Your task to perform on an android device: install app "Adobe Acrobat Reader: Edit PDF" Image 0: 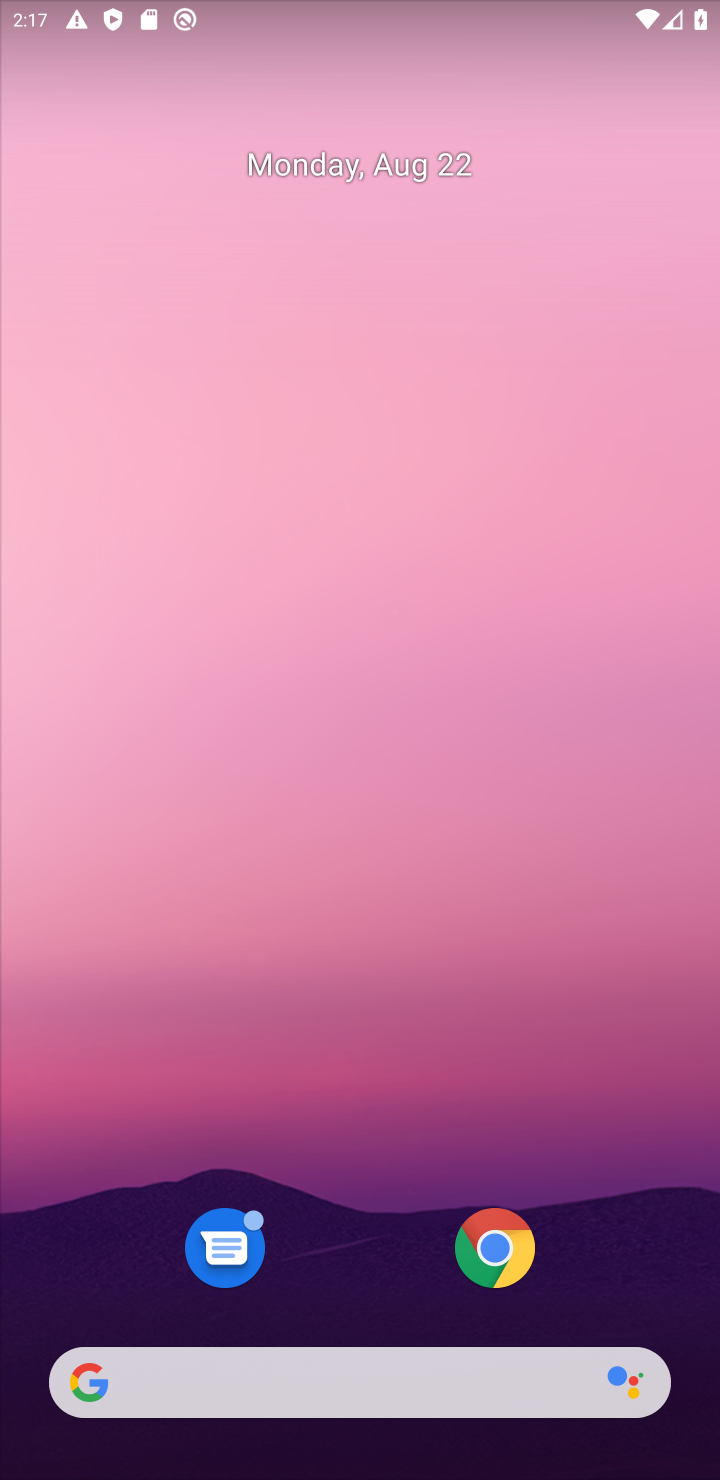
Step 0: drag from (363, 1001) to (377, 6)
Your task to perform on an android device: install app "Adobe Acrobat Reader: Edit PDF" Image 1: 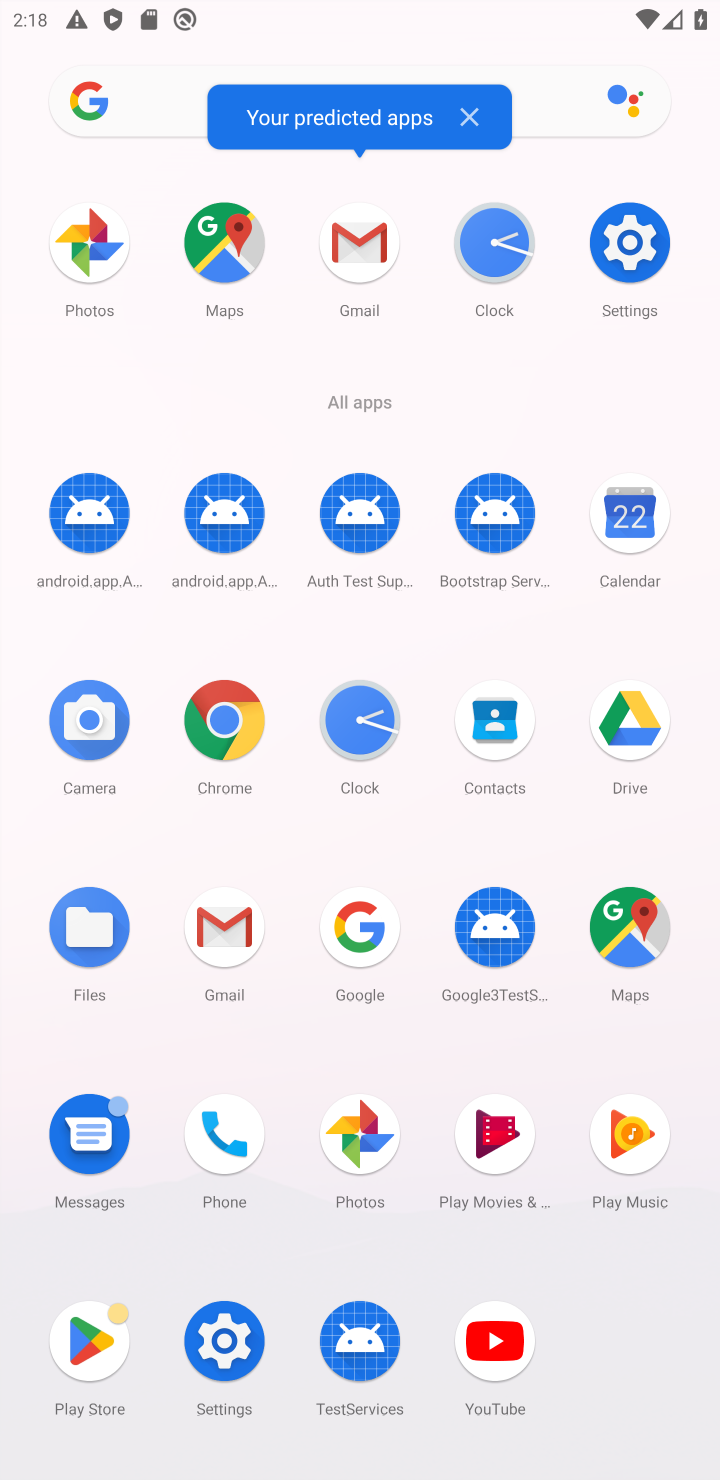
Step 1: click (85, 1332)
Your task to perform on an android device: install app "Adobe Acrobat Reader: Edit PDF" Image 2: 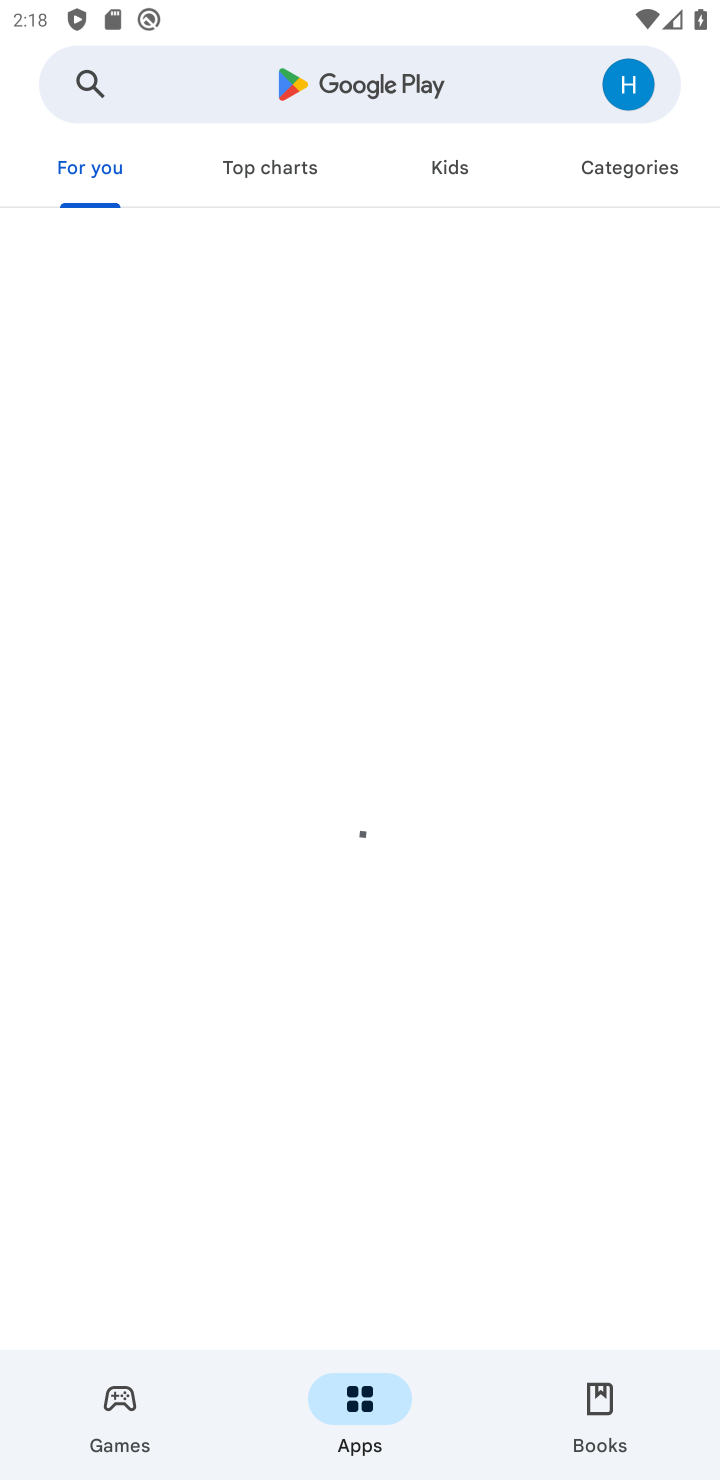
Step 2: click (375, 85)
Your task to perform on an android device: install app "Adobe Acrobat Reader: Edit PDF" Image 3: 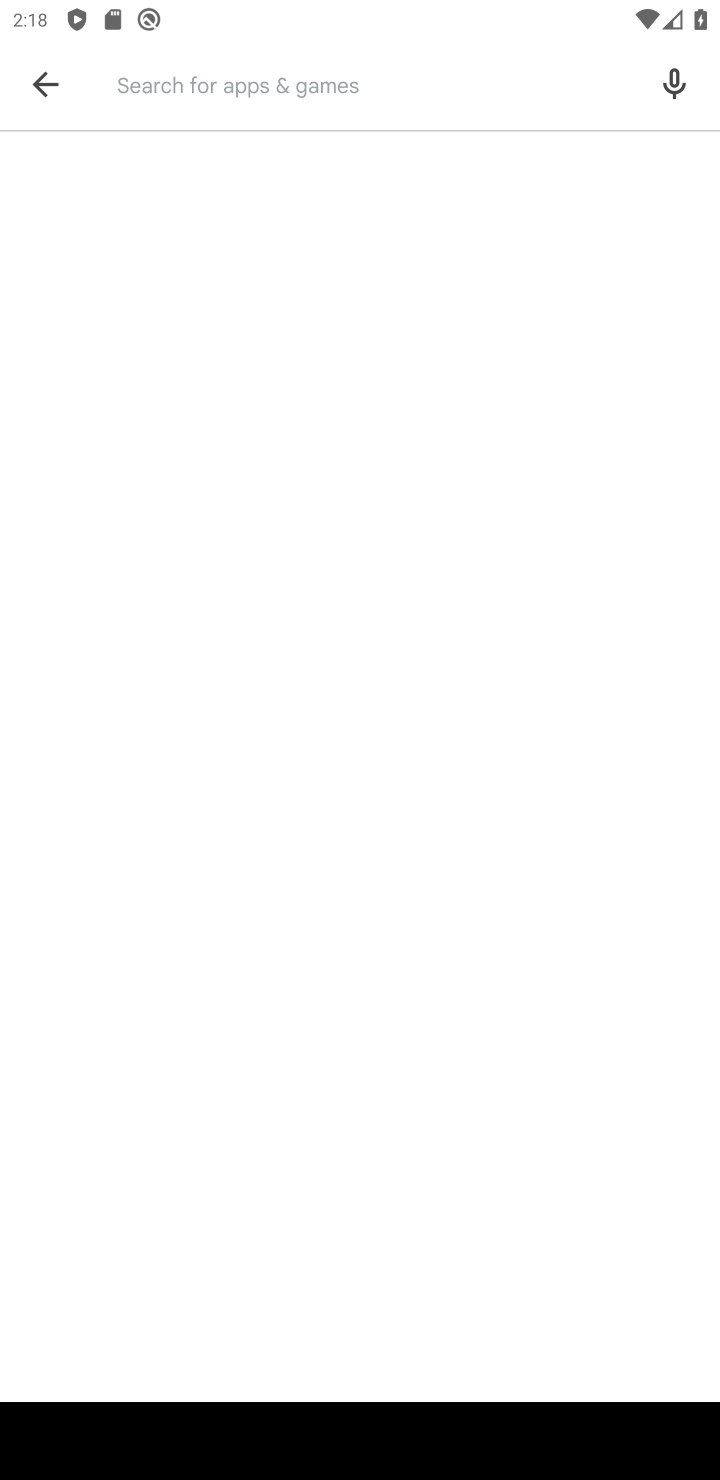
Step 3: type "Adobe Acrobat Reader"
Your task to perform on an android device: install app "Adobe Acrobat Reader: Edit PDF" Image 4: 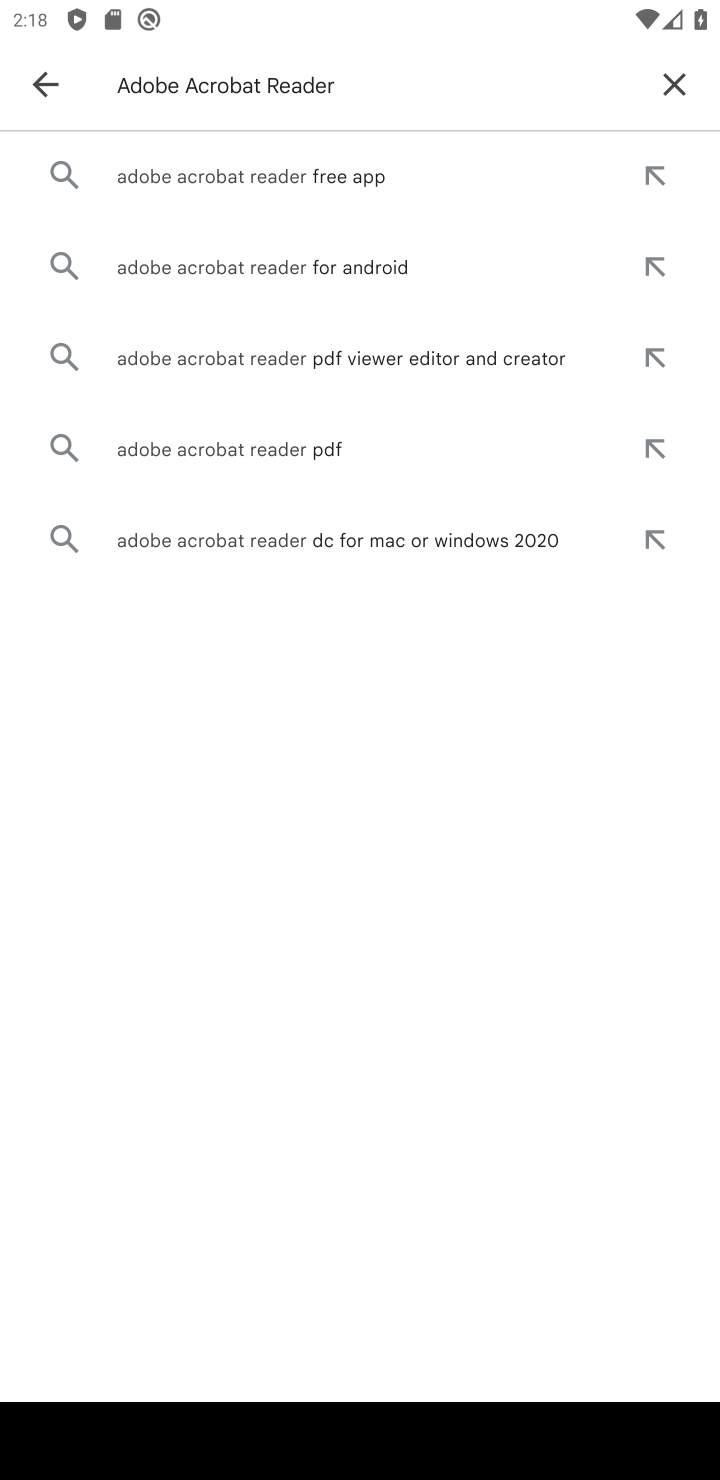
Step 4: click (368, 103)
Your task to perform on an android device: install app "Adobe Acrobat Reader: Edit PDF" Image 5: 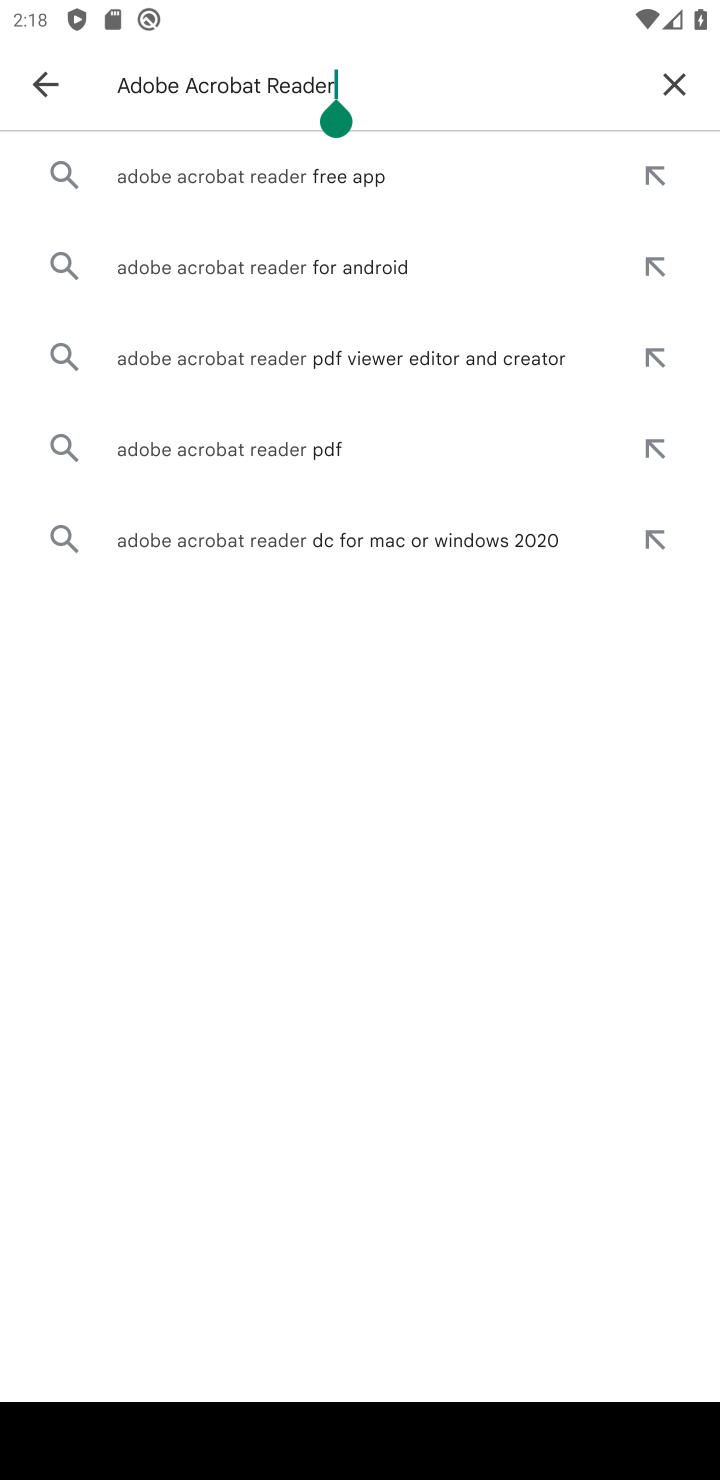
Step 5: click (337, 198)
Your task to perform on an android device: install app "Adobe Acrobat Reader: Edit PDF" Image 6: 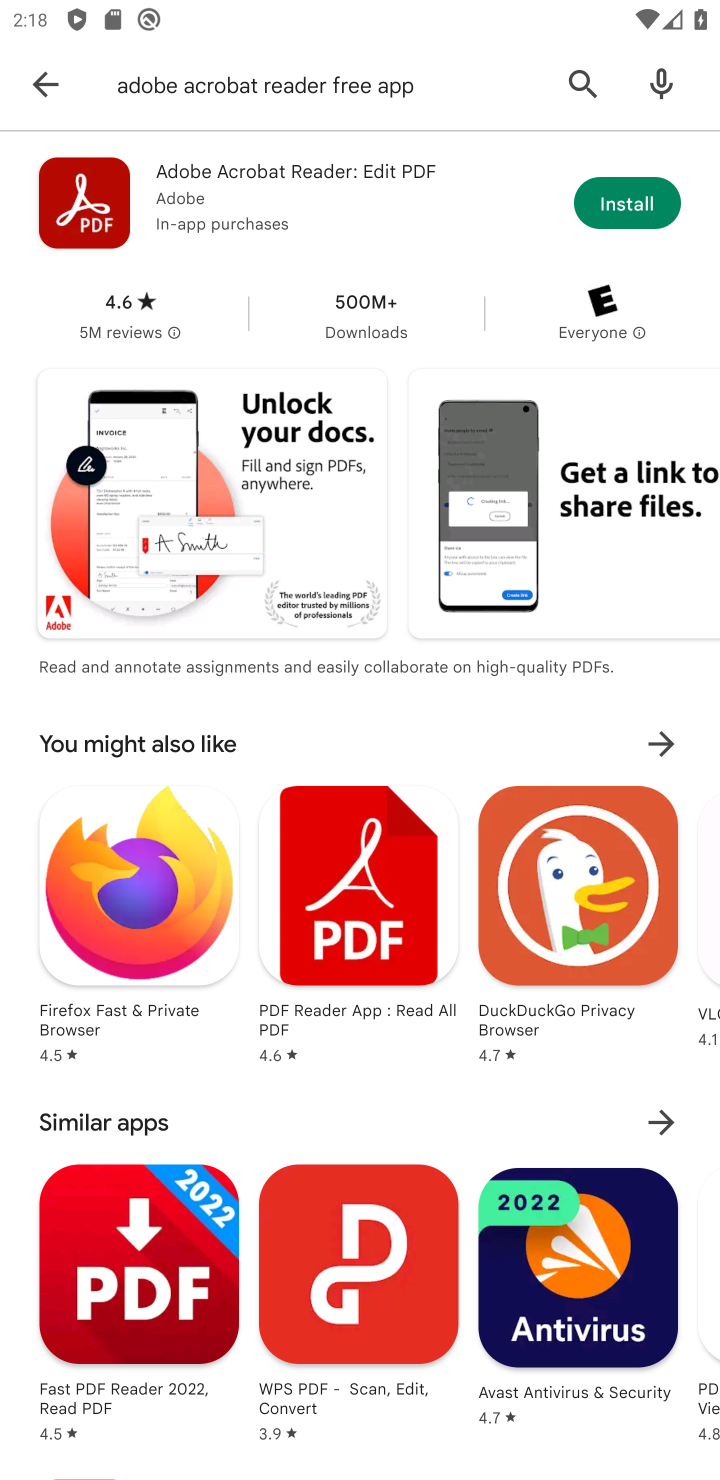
Step 6: click (649, 209)
Your task to perform on an android device: install app "Adobe Acrobat Reader: Edit PDF" Image 7: 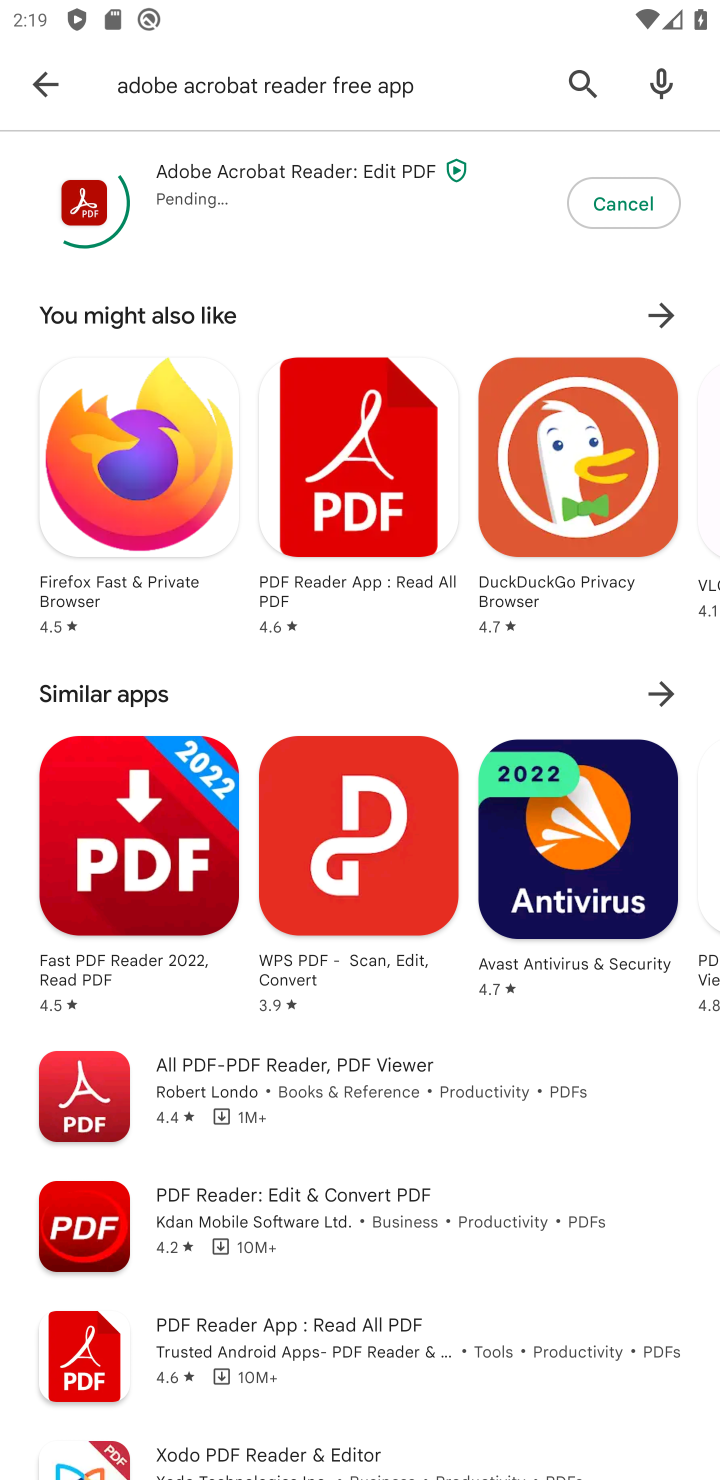
Step 7: click (40, 84)
Your task to perform on an android device: install app "Adobe Acrobat Reader: Edit PDF" Image 8: 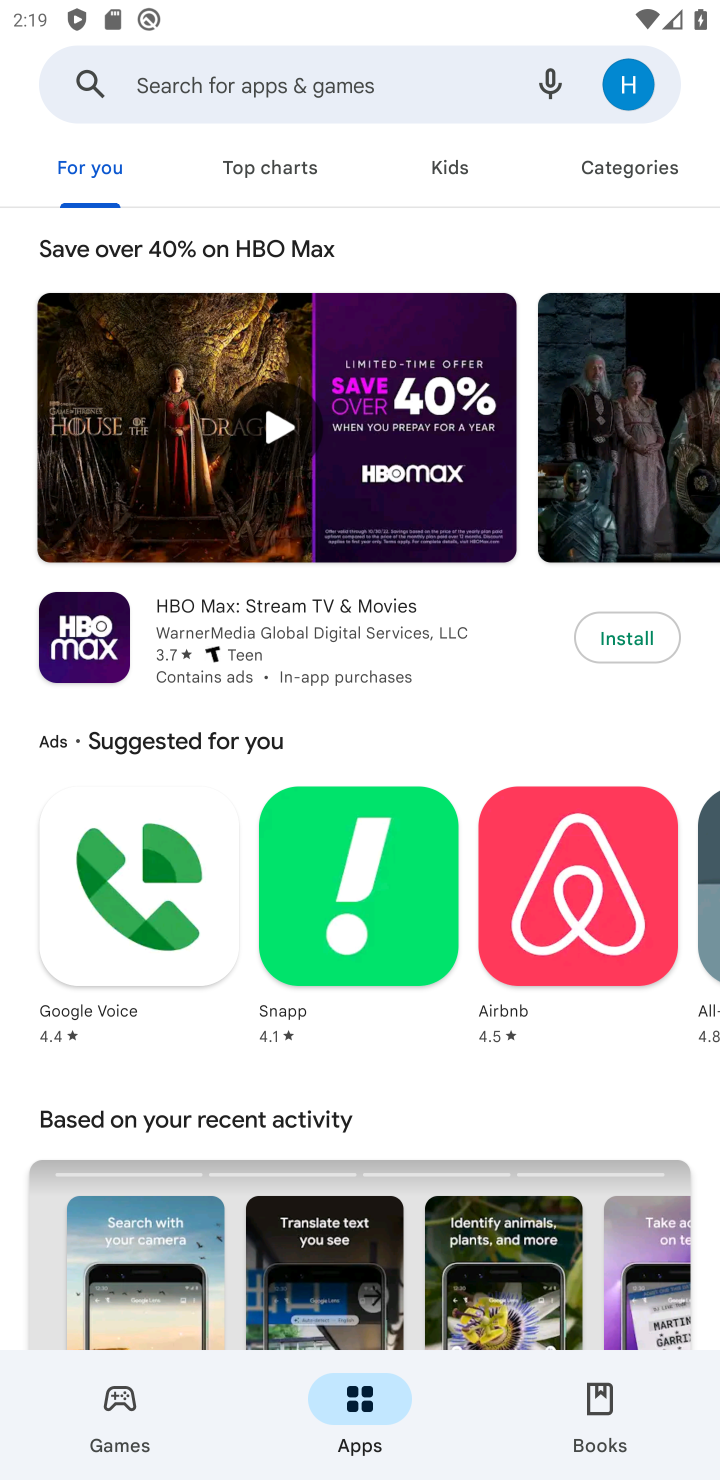
Step 8: click (632, 85)
Your task to perform on an android device: install app "Adobe Acrobat Reader: Edit PDF" Image 9: 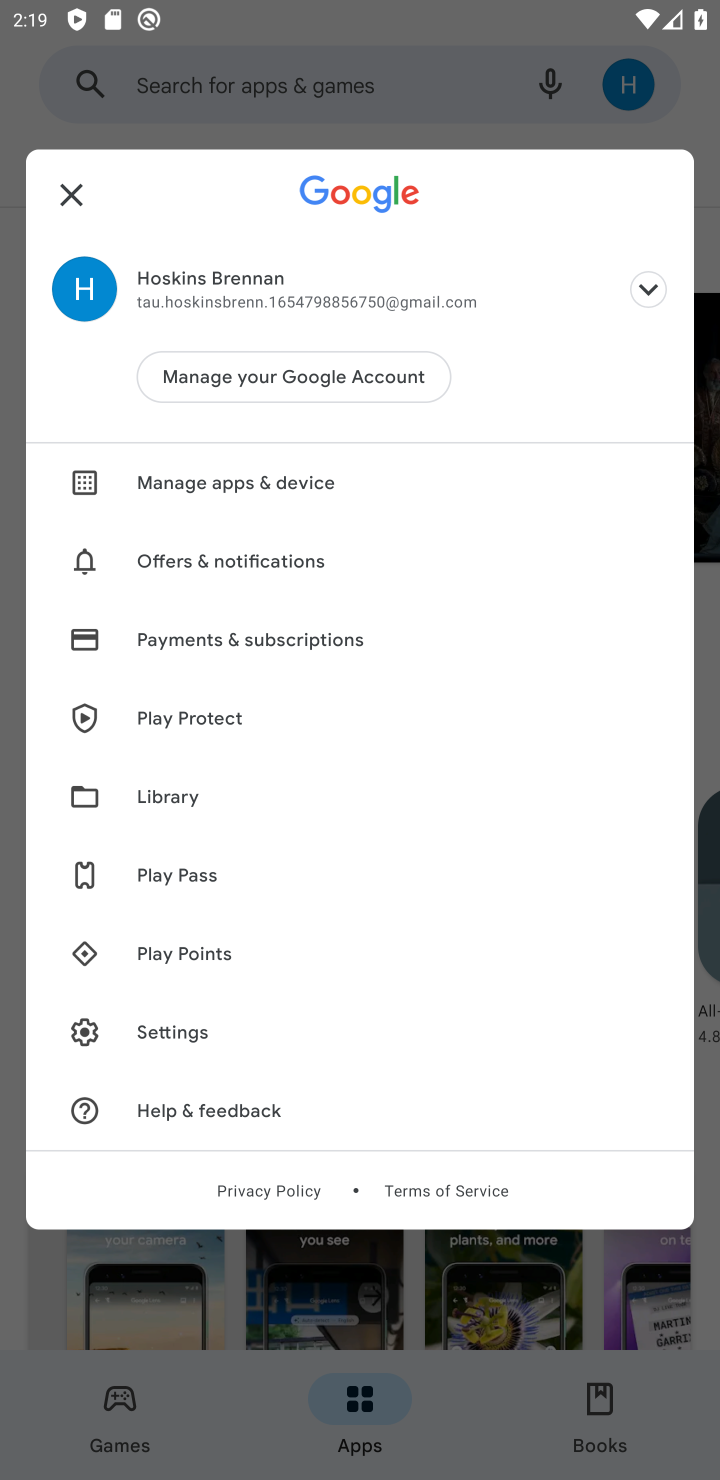
Step 9: click (272, 487)
Your task to perform on an android device: install app "Adobe Acrobat Reader: Edit PDF" Image 10: 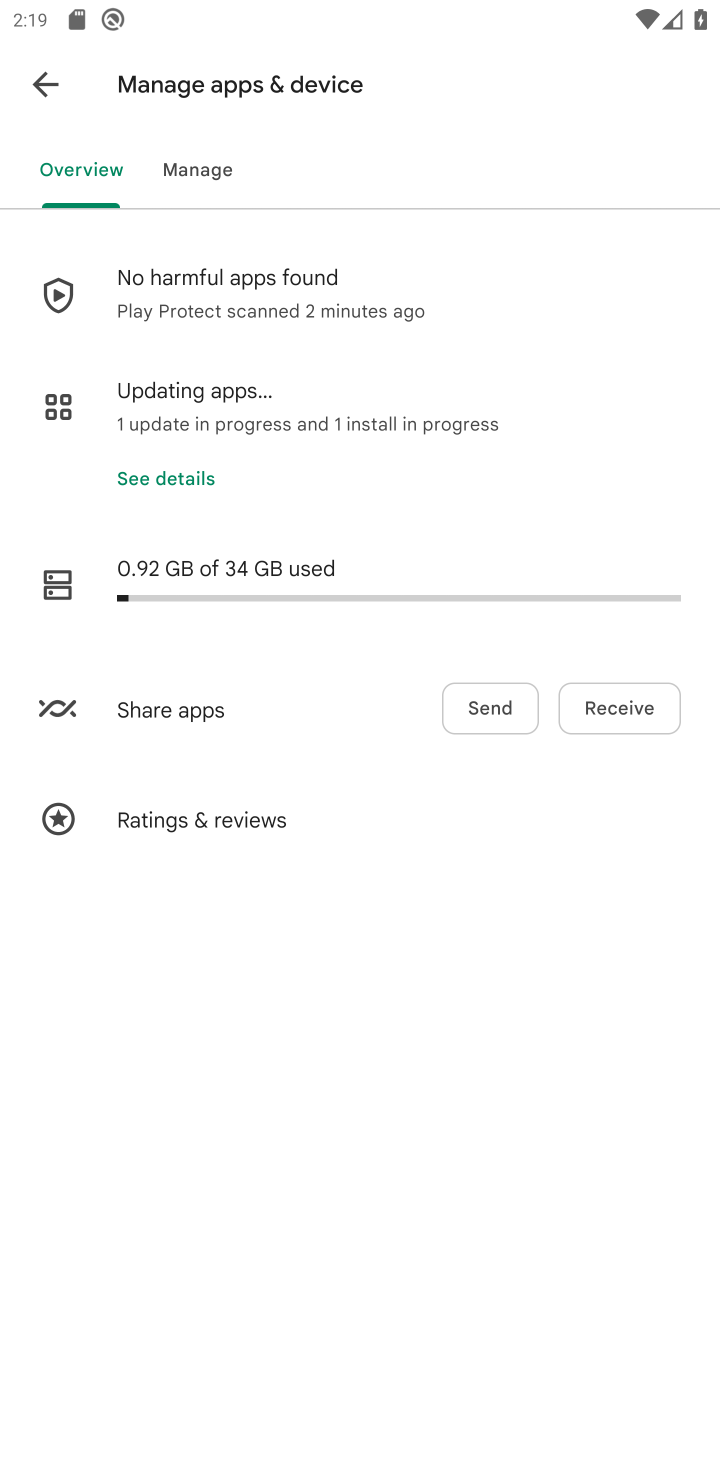
Step 10: click (237, 426)
Your task to perform on an android device: install app "Adobe Acrobat Reader: Edit PDF" Image 11: 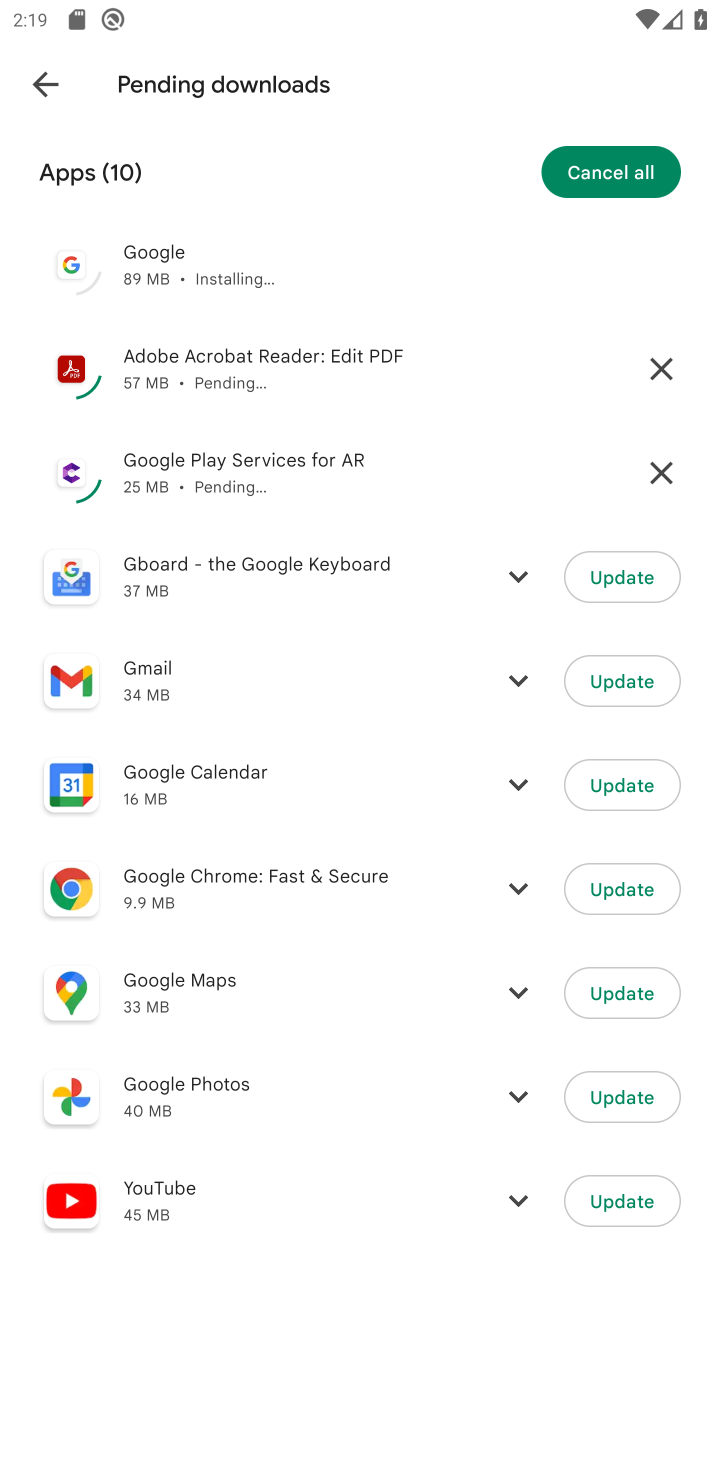
Step 11: click (659, 464)
Your task to perform on an android device: install app "Adobe Acrobat Reader: Edit PDF" Image 12: 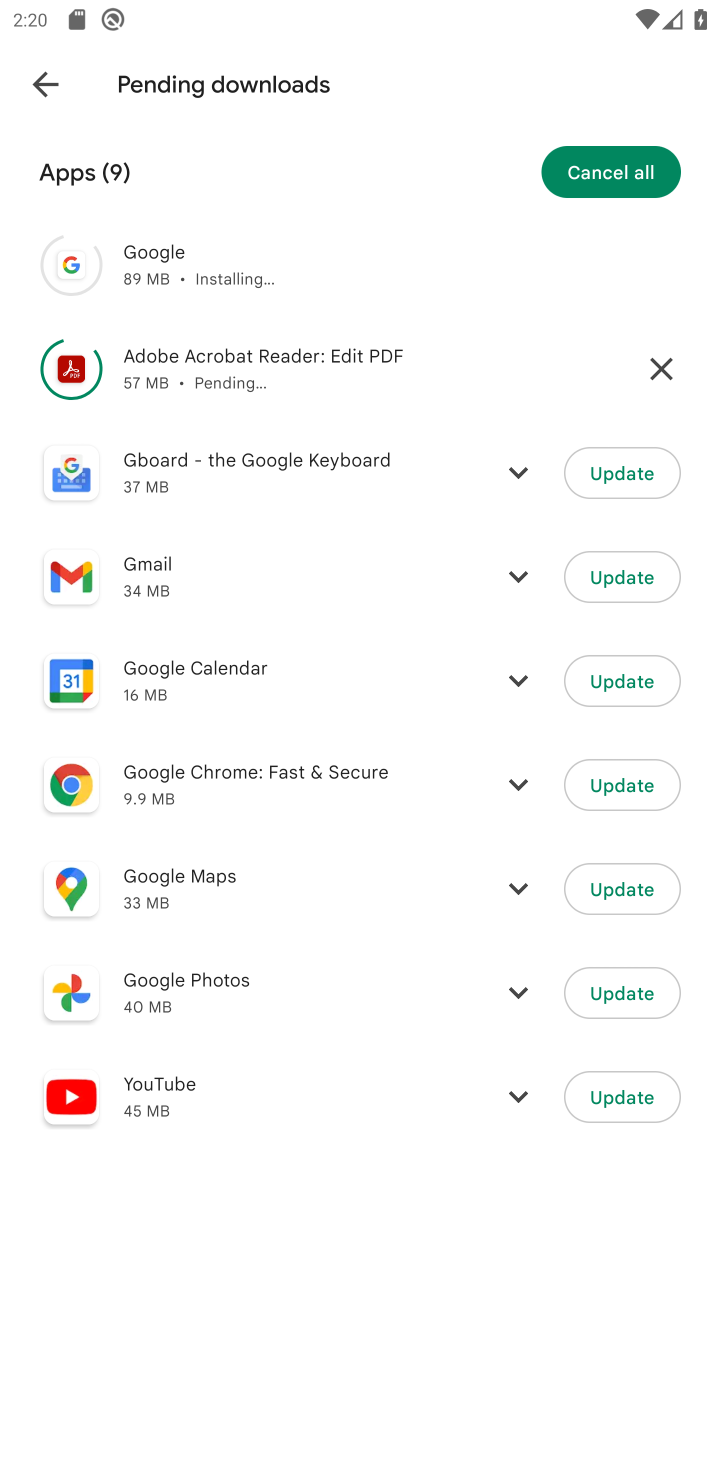
Step 12: click (210, 365)
Your task to perform on an android device: install app "Adobe Acrobat Reader: Edit PDF" Image 13: 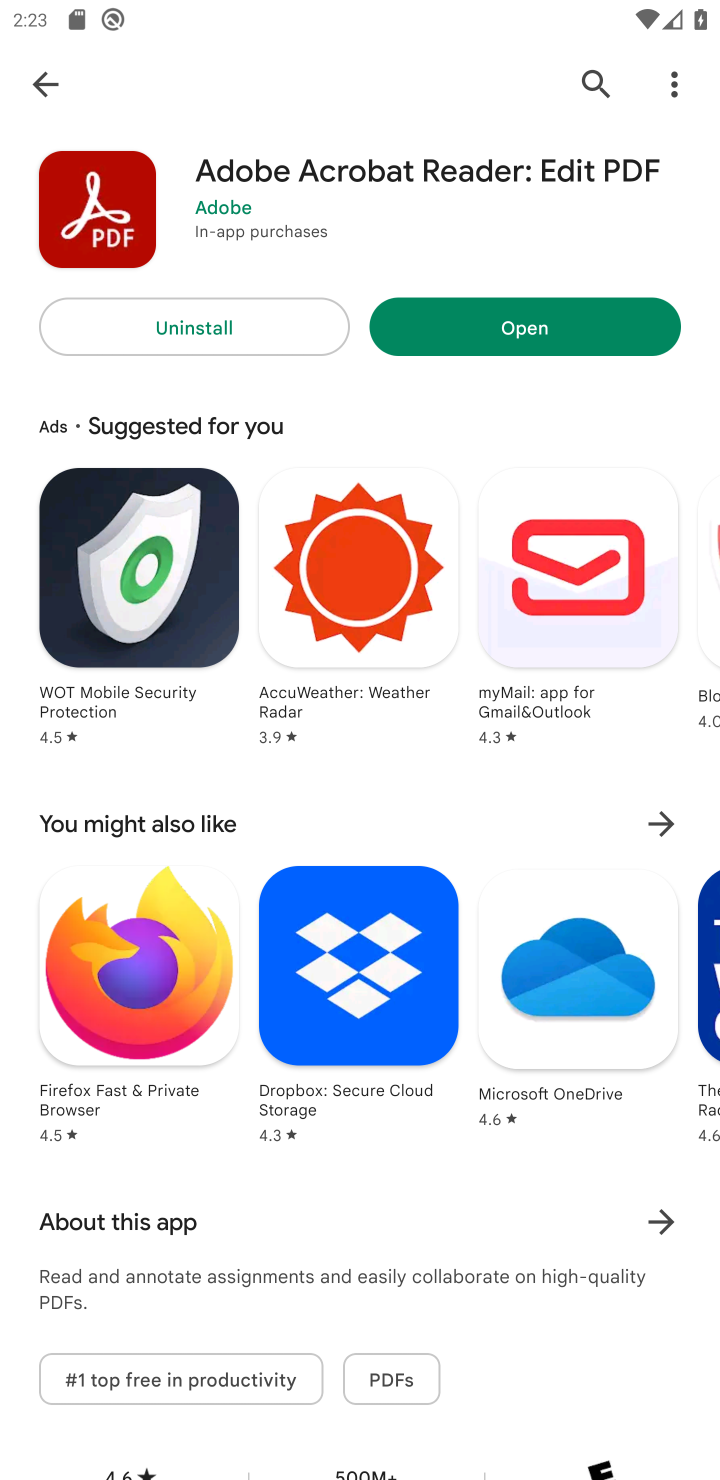
Step 13: task complete